Your task to perform on an android device: open app "Spotify" (install if not already installed) and enter user name: "infallible@icloud.com" and password: "implored" Image 0: 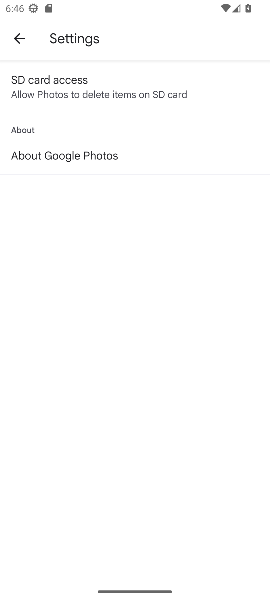
Step 0: press home button
Your task to perform on an android device: open app "Spotify" (install if not already installed) and enter user name: "infallible@icloud.com" and password: "implored" Image 1: 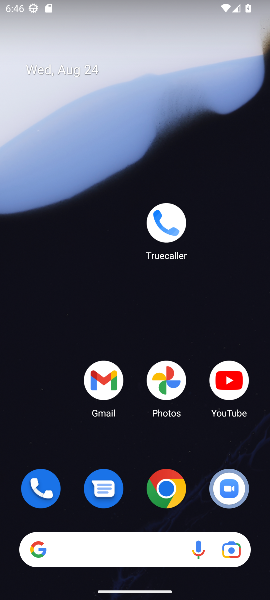
Step 1: drag from (127, 519) to (138, 6)
Your task to perform on an android device: open app "Spotify" (install if not already installed) and enter user name: "infallible@icloud.com" and password: "implored" Image 2: 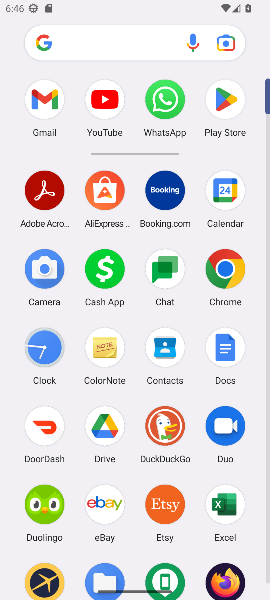
Step 2: drag from (198, 479) to (186, 199)
Your task to perform on an android device: open app "Spotify" (install if not already installed) and enter user name: "infallible@icloud.com" and password: "implored" Image 3: 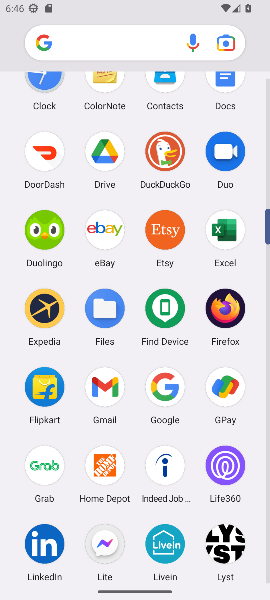
Step 3: drag from (141, 485) to (141, 196)
Your task to perform on an android device: open app "Spotify" (install if not already installed) and enter user name: "infallible@icloud.com" and password: "implored" Image 4: 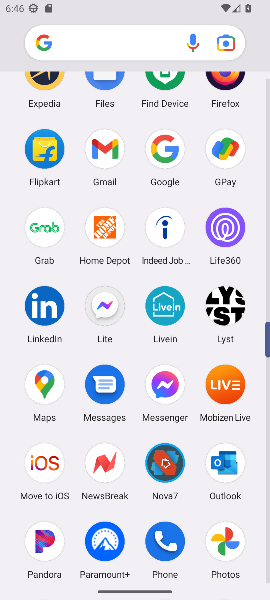
Step 4: drag from (134, 523) to (132, 219)
Your task to perform on an android device: open app "Spotify" (install if not already installed) and enter user name: "infallible@icloud.com" and password: "implored" Image 5: 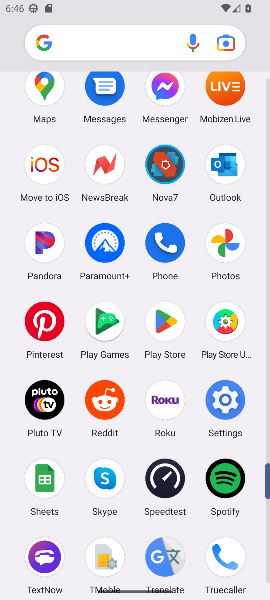
Step 5: click (233, 493)
Your task to perform on an android device: open app "Spotify" (install if not already installed) and enter user name: "infallible@icloud.com" and password: "implored" Image 6: 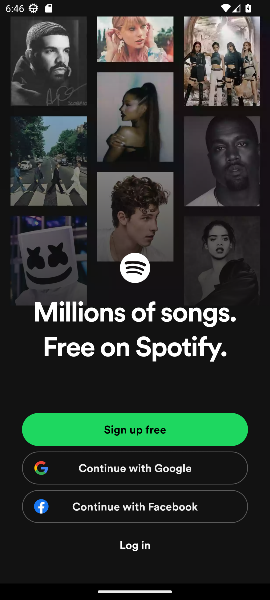
Step 6: click (132, 539)
Your task to perform on an android device: open app "Spotify" (install if not already installed) and enter user name: "infallible@icloud.com" and password: "implored" Image 7: 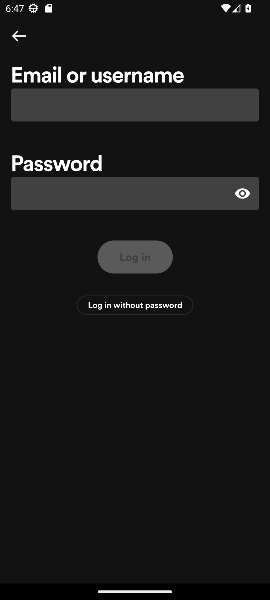
Step 7: click (59, 96)
Your task to perform on an android device: open app "Spotify" (install if not already installed) and enter user name: "infallible@icloud.com" and password: "implored" Image 8: 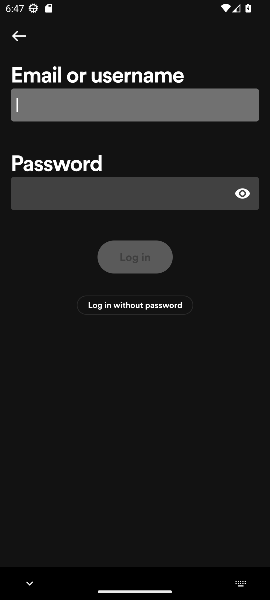
Step 8: type "infallible@icloud.com"
Your task to perform on an android device: open app "Spotify" (install if not already installed) and enter user name: "infallible@icloud.com" and password: "implored" Image 9: 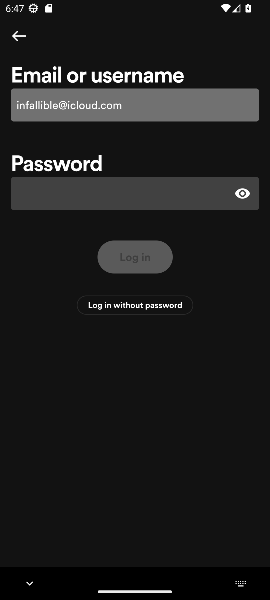
Step 9: click (137, 203)
Your task to perform on an android device: open app "Spotify" (install if not already installed) and enter user name: "infallible@icloud.com" and password: "implored" Image 10: 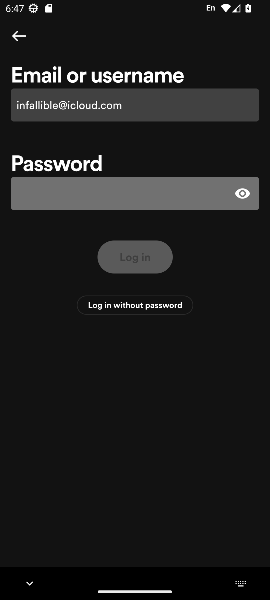
Step 10: type "implored"
Your task to perform on an android device: open app "Spotify" (install if not already installed) and enter user name: "infallible@icloud.com" and password: "implored" Image 11: 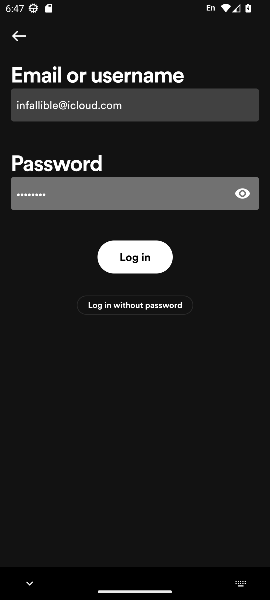
Step 11: click (122, 263)
Your task to perform on an android device: open app "Spotify" (install if not already installed) and enter user name: "infallible@icloud.com" and password: "implored" Image 12: 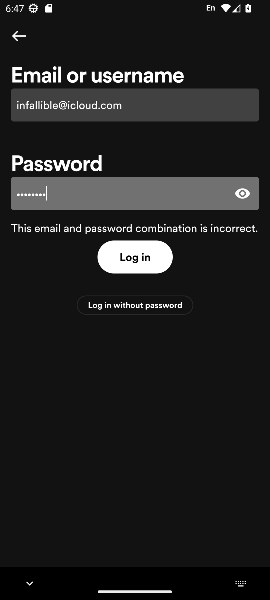
Step 12: task complete